Your task to perform on an android device: Open Wikipedia Image 0: 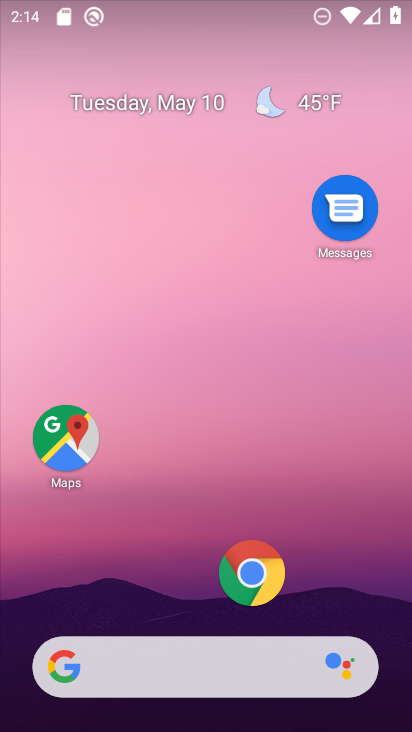
Step 0: drag from (177, 579) to (216, 291)
Your task to perform on an android device: Open Wikipedia Image 1: 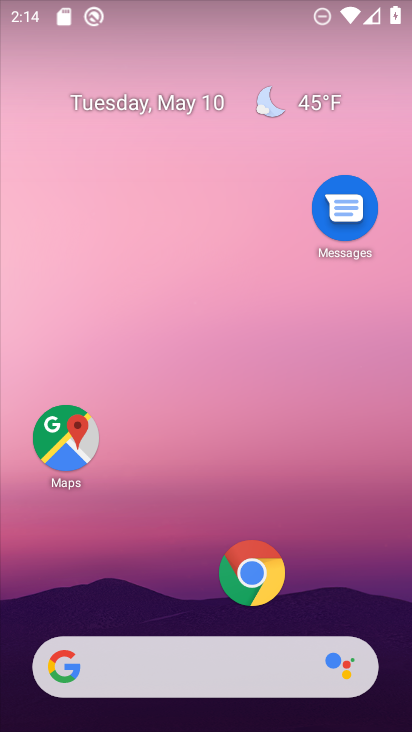
Step 1: drag from (195, 592) to (209, 120)
Your task to perform on an android device: Open Wikipedia Image 2: 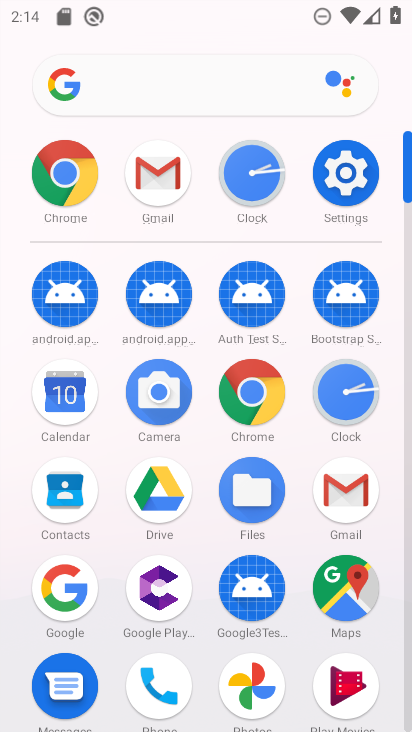
Step 2: drag from (215, 646) to (212, 254)
Your task to perform on an android device: Open Wikipedia Image 3: 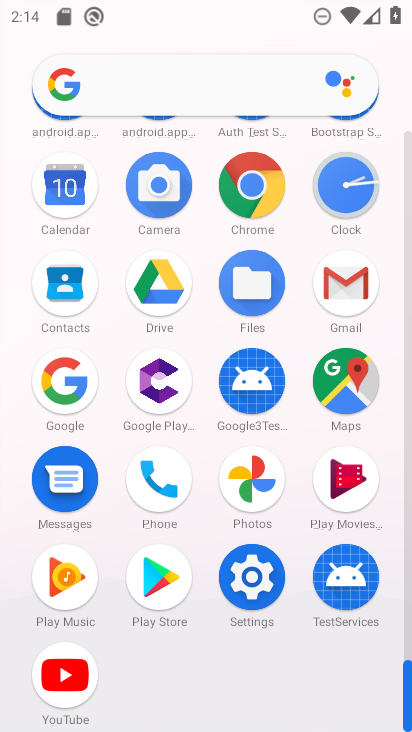
Step 3: click (253, 182)
Your task to perform on an android device: Open Wikipedia Image 4: 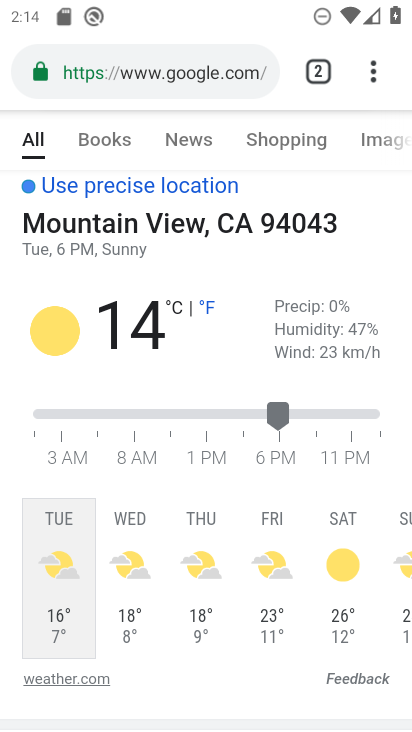
Step 4: drag from (265, 607) to (266, 196)
Your task to perform on an android device: Open Wikipedia Image 5: 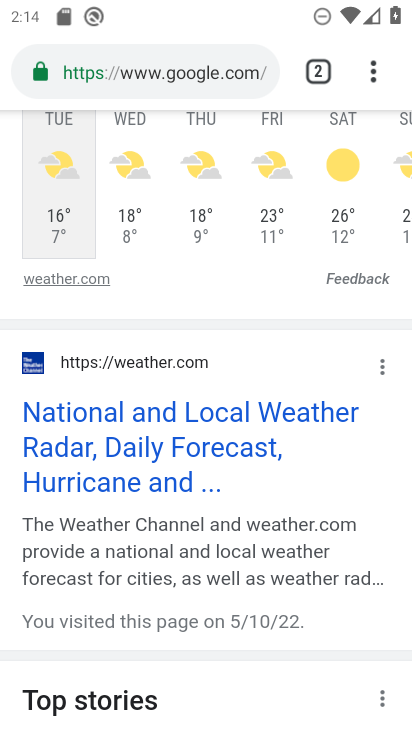
Step 5: drag from (191, 310) to (263, 554)
Your task to perform on an android device: Open Wikipedia Image 6: 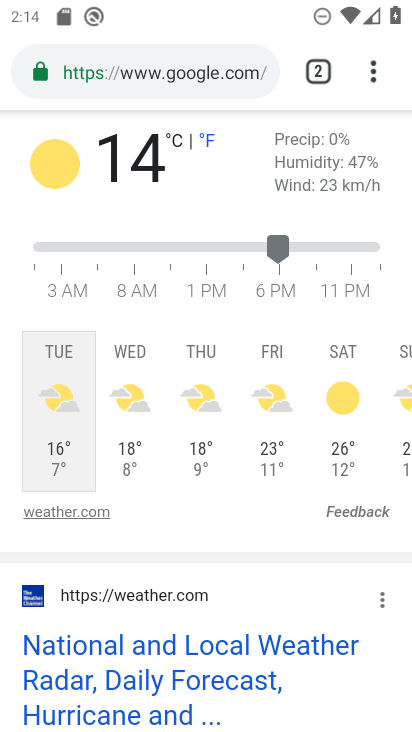
Step 6: drag from (220, 120) to (294, 531)
Your task to perform on an android device: Open Wikipedia Image 7: 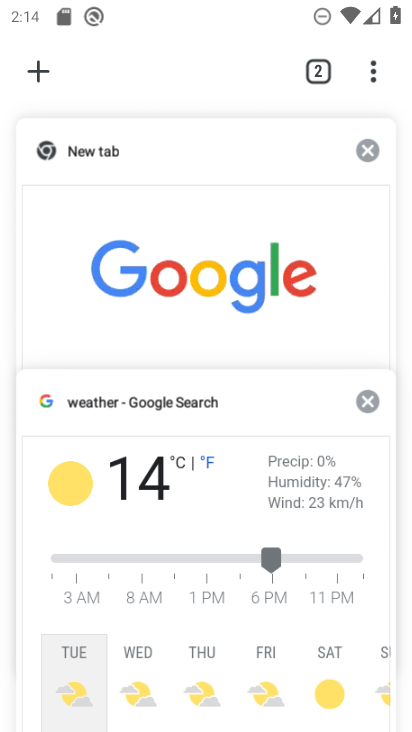
Step 7: click (205, 441)
Your task to perform on an android device: Open Wikipedia Image 8: 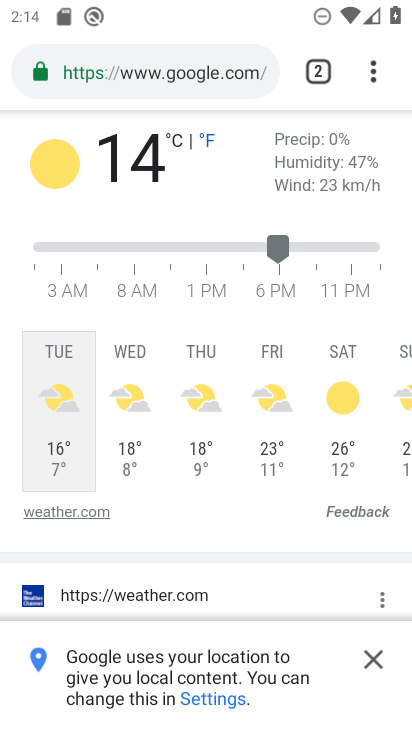
Step 8: click (178, 56)
Your task to perform on an android device: Open Wikipedia Image 9: 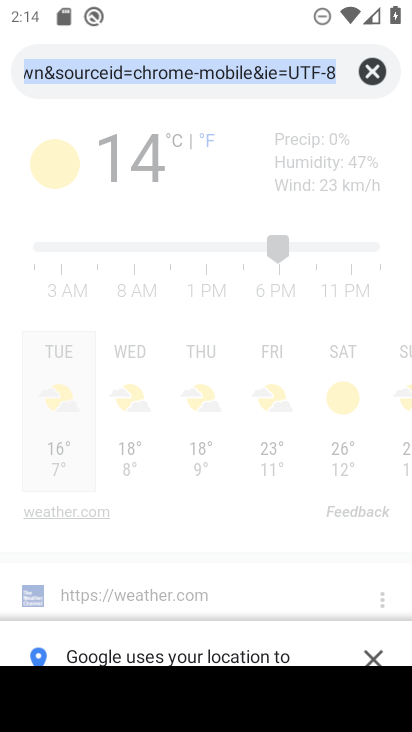
Step 9: click (369, 70)
Your task to perform on an android device: Open Wikipedia Image 10: 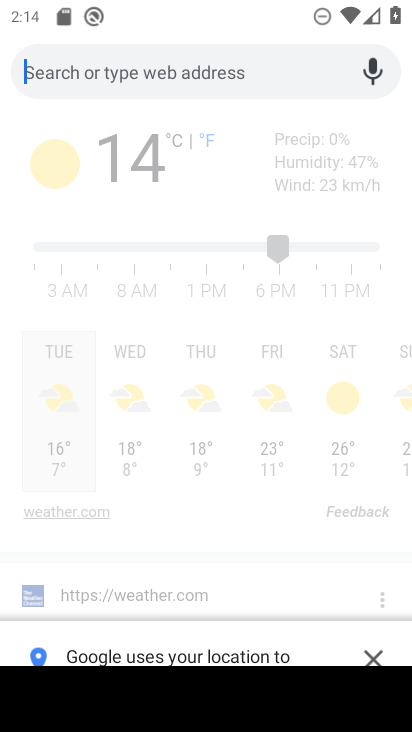
Step 10: type "wikipedia"
Your task to perform on an android device: Open Wikipedia Image 11: 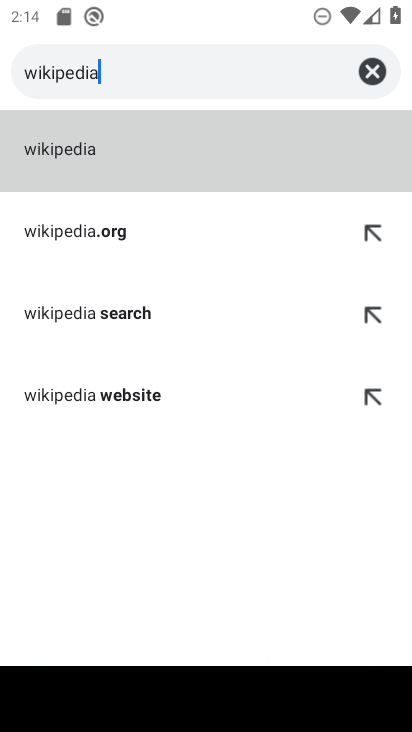
Step 11: click (70, 153)
Your task to perform on an android device: Open Wikipedia Image 12: 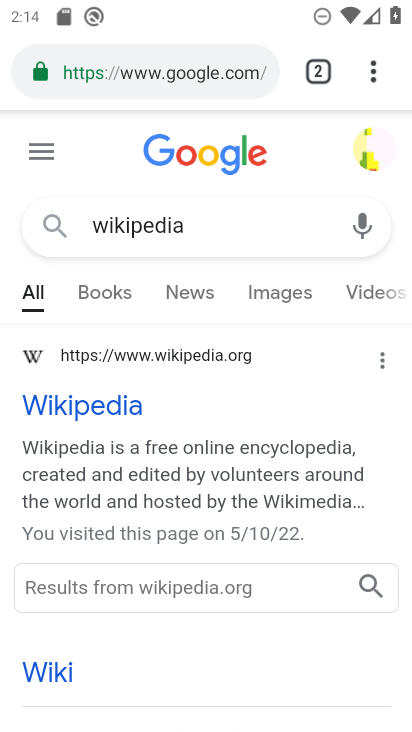
Step 12: click (123, 404)
Your task to perform on an android device: Open Wikipedia Image 13: 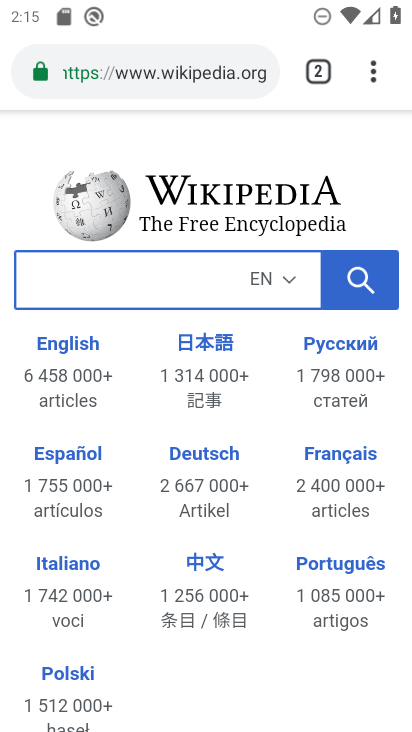
Step 13: task complete